Your task to perform on an android device: find which apps use the phone's location Image 0: 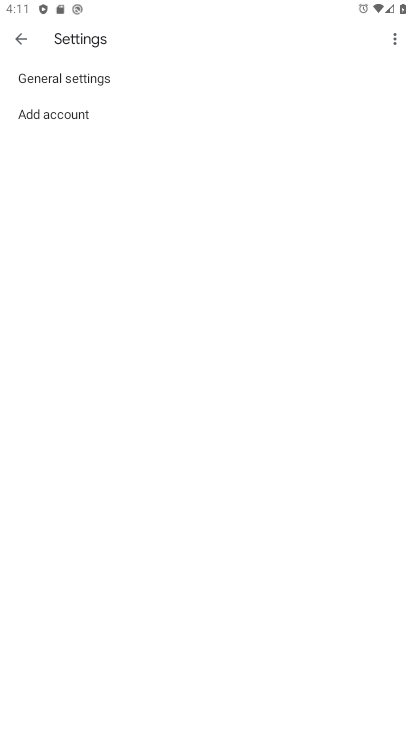
Step 0: press home button
Your task to perform on an android device: find which apps use the phone's location Image 1: 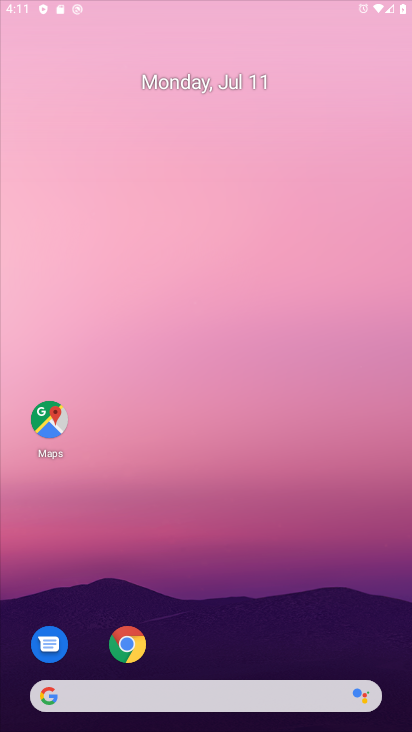
Step 1: drag from (344, 709) to (301, 7)
Your task to perform on an android device: find which apps use the phone's location Image 2: 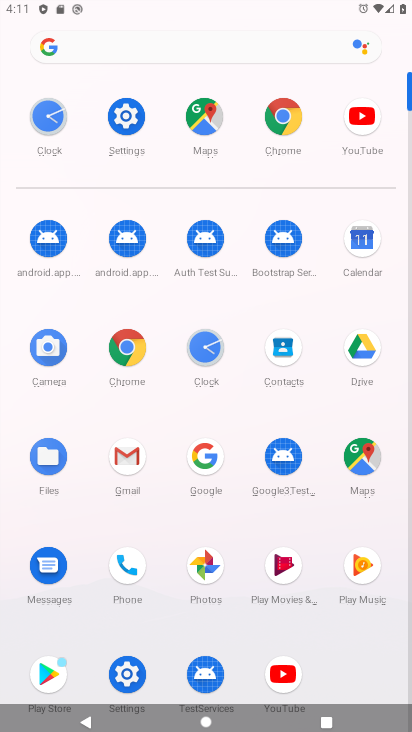
Step 2: click (136, 110)
Your task to perform on an android device: find which apps use the phone's location Image 3: 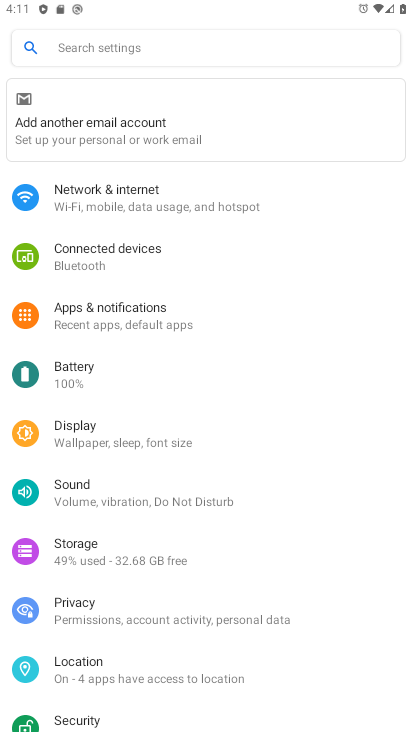
Step 3: drag from (219, 612) to (262, 121)
Your task to perform on an android device: find which apps use the phone's location Image 4: 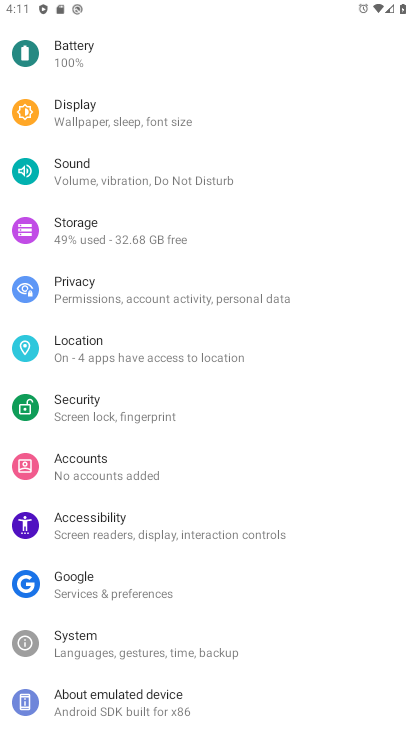
Step 4: click (87, 352)
Your task to perform on an android device: find which apps use the phone's location Image 5: 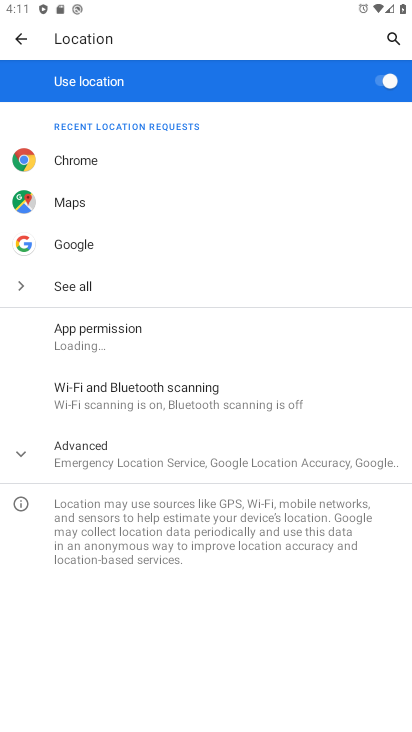
Step 5: click (133, 337)
Your task to perform on an android device: find which apps use the phone's location Image 6: 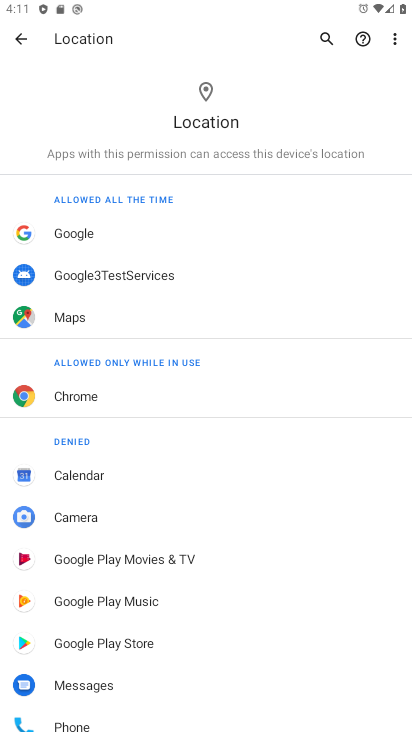
Step 6: task complete